Your task to perform on an android device: find photos in the google photos app Image 0: 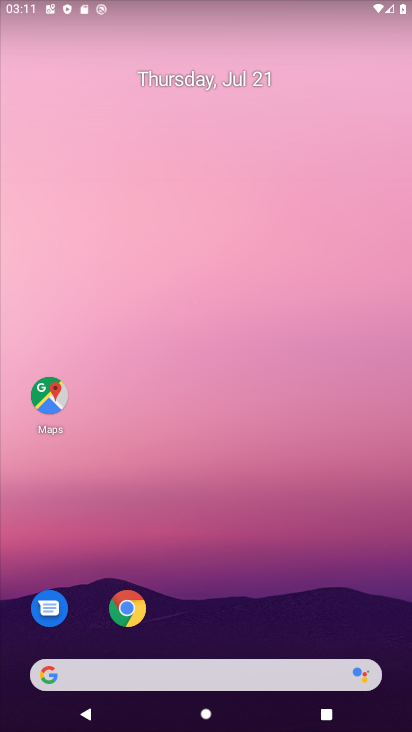
Step 0: drag from (149, 685) to (270, 1)
Your task to perform on an android device: find photos in the google photos app Image 1: 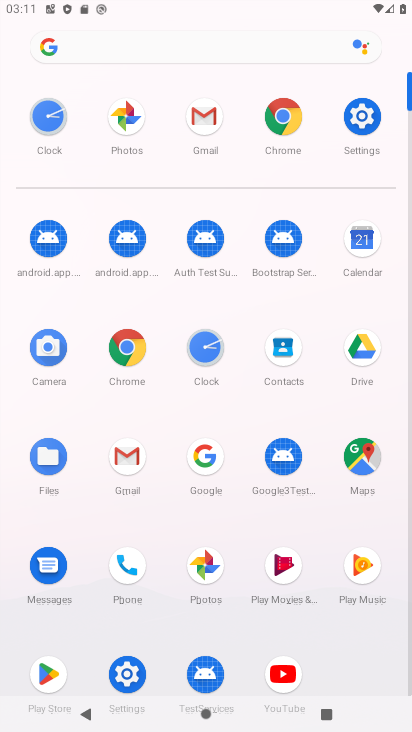
Step 1: click (201, 564)
Your task to perform on an android device: find photos in the google photos app Image 2: 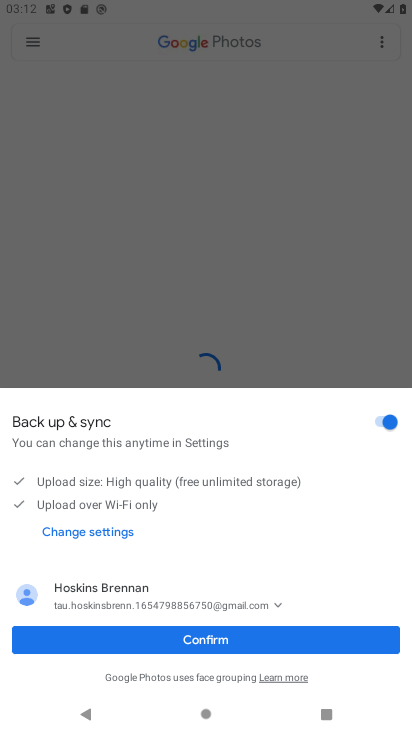
Step 2: click (204, 641)
Your task to perform on an android device: find photos in the google photos app Image 3: 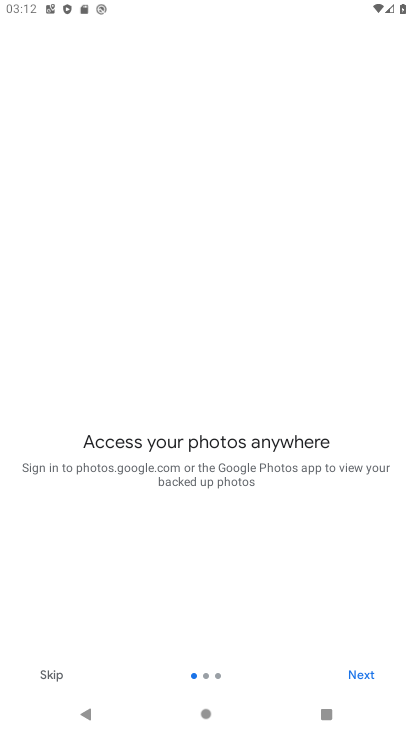
Step 3: click (349, 663)
Your task to perform on an android device: find photos in the google photos app Image 4: 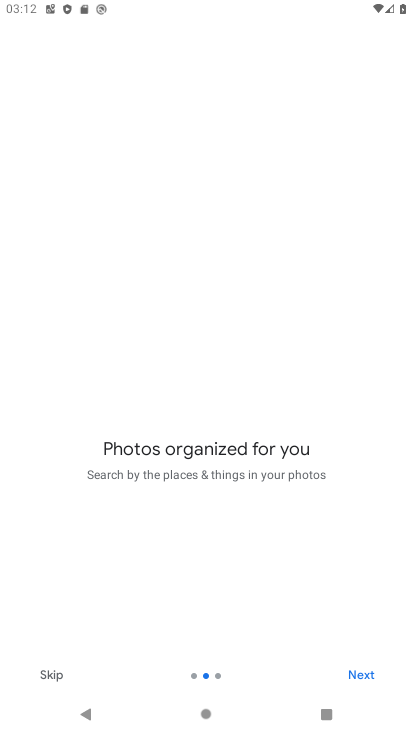
Step 4: click (349, 663)
Your task to perform on an android device: find photos in the google photos app Image 5: 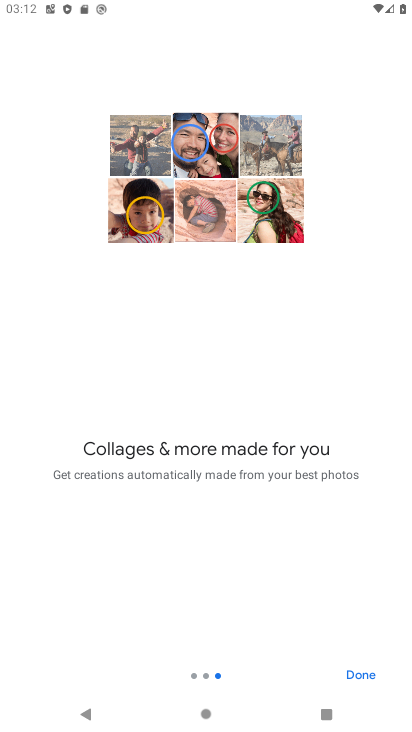
Step 5: click (349, 663)
Your task to perform on an android device: find photos in the google photos app Image 6: 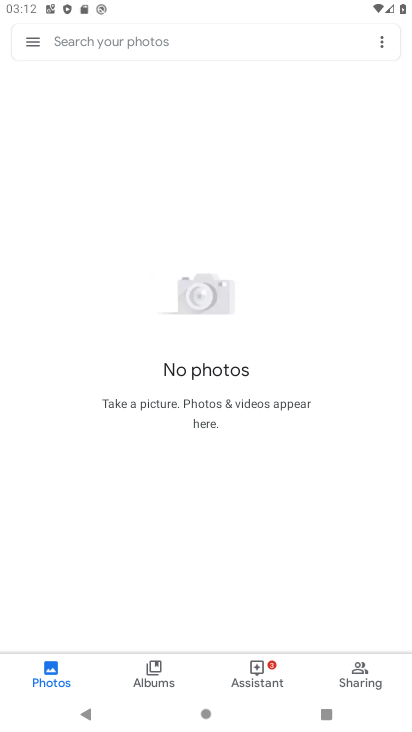
Step 6: task complete